Your task to perform on an android device: change notification settings in the gmail app Image 0: 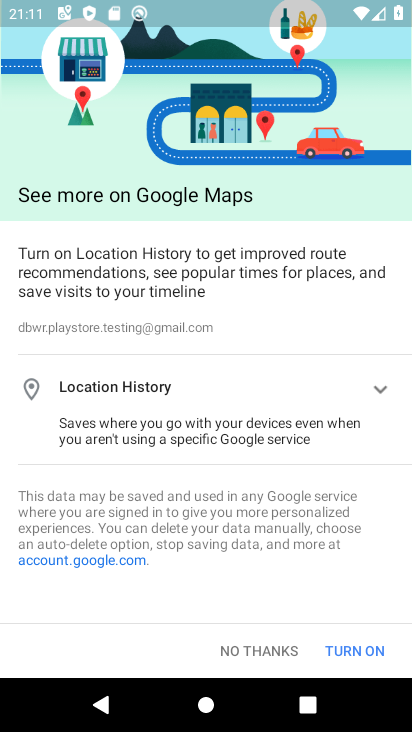
Step 0: press home button
Your task to perform on an android device: change notification settings in the gmail app Image 1: 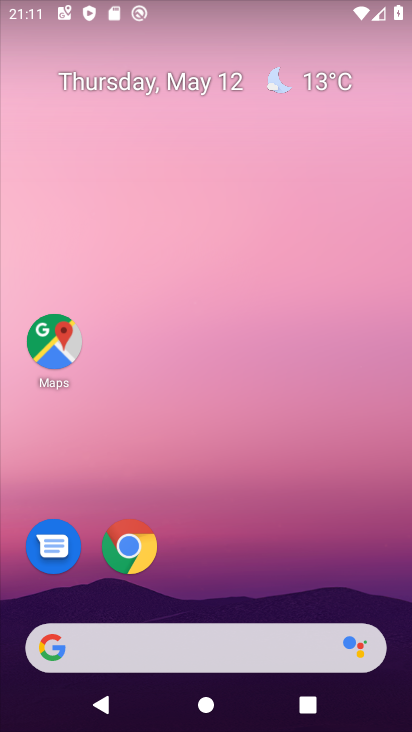
Step 1: drag from (267, 572) to (222, 87)
Your task to perform on an android device: change notification settings in the gmail app Image 2: 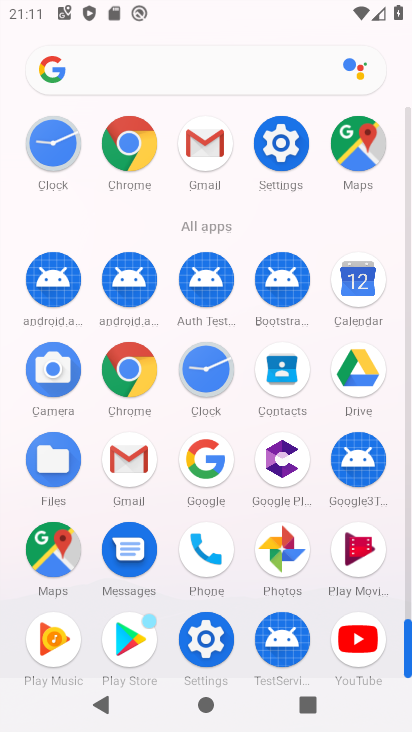
Step 2: click (125, 451)
Your task to perform on an android device: change notification settings in the gmail app Image 3: 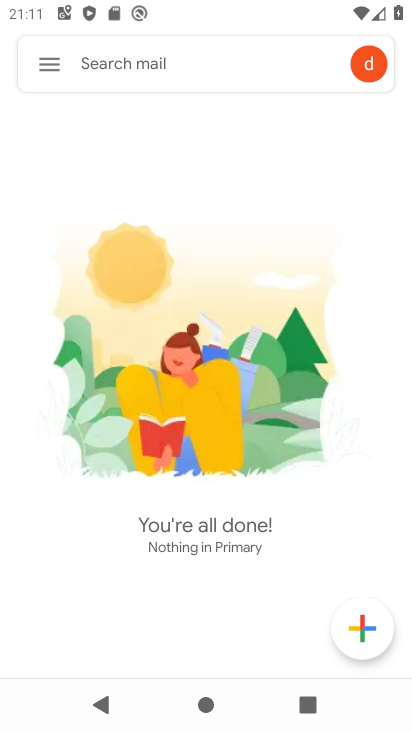
Step 3: press home button
Your task to perform on an android device: change notification settings in the gmail app Image 4: 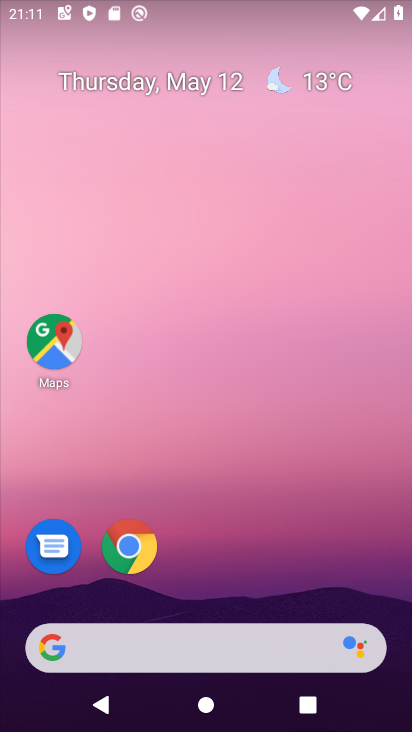
Step 4: drag from (256, 565) to (246, 80)
Your task to perform on an android device: change notification settings in the gmail app Image 5: 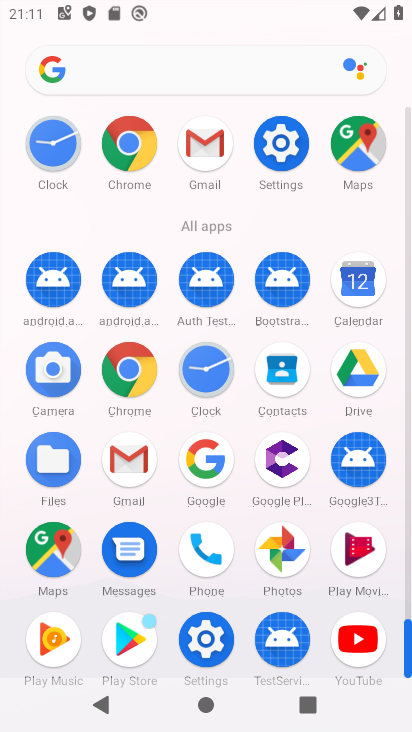
Step 5: click (122, 458)
Your task to perform on an android device: change notification settings in the gmail app Image 6: 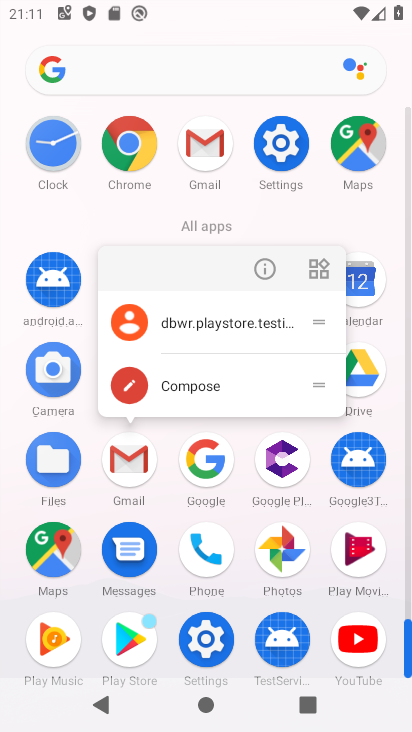
Step 6: click (269, 265)
Your task to perform on an android device: change notification settings in the gmail app Image 7: 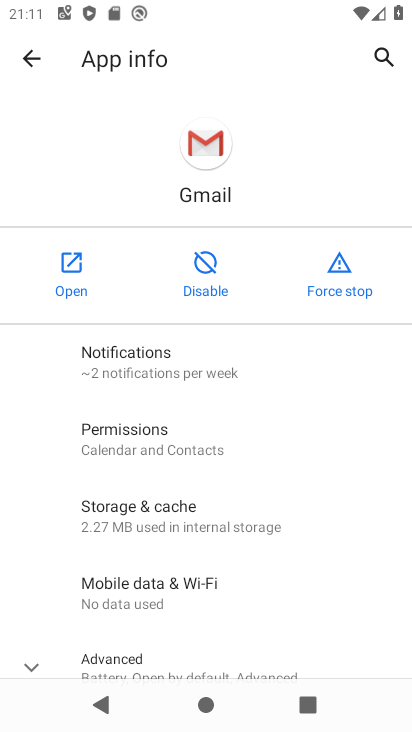
Step 7: click (149, 361)
Your task to perform on an android device: change notification settings in the gmail app Image 8: 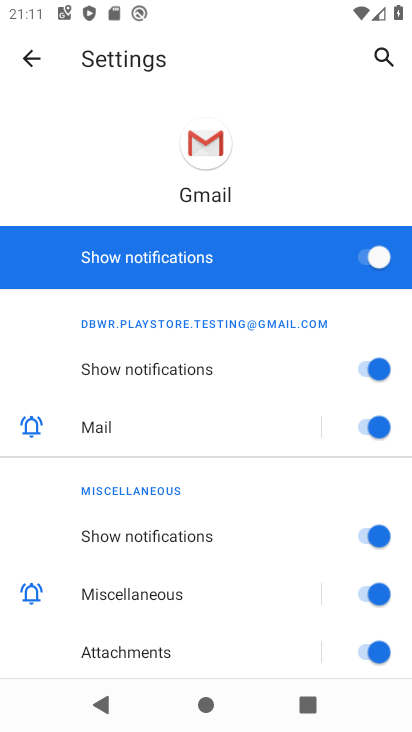
Step 8: click (372, 256)
Your task to perform on an android device: change notification settings in the gmail app Image 9: 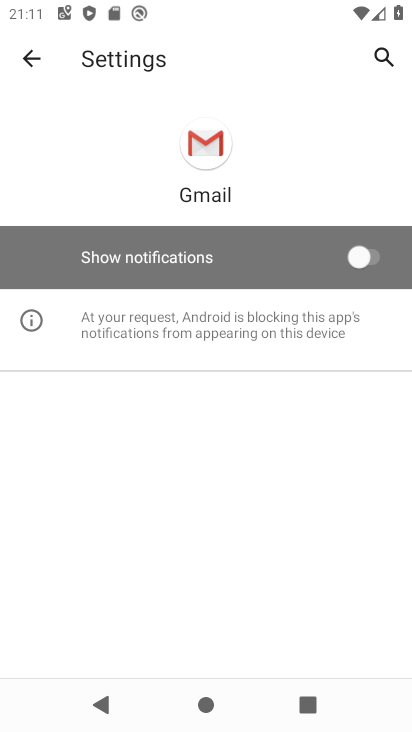
Step 9: task complete